Your task to perform on an android device: clear history in the chrome app Image 0: 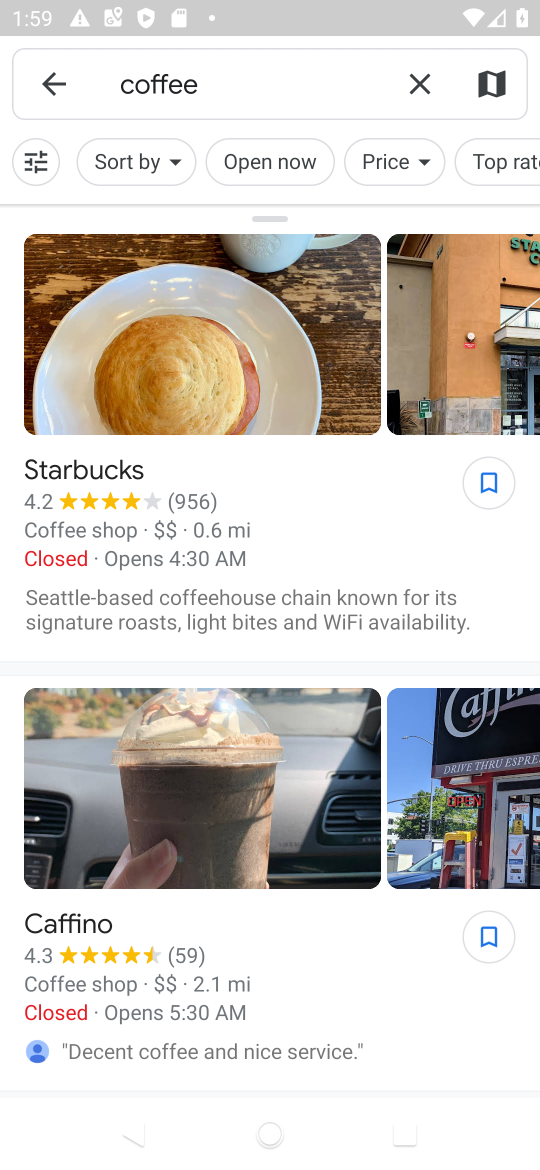
Step 0: press home button
Your task to perform on an android device: clear history in the chrome app Image 1: 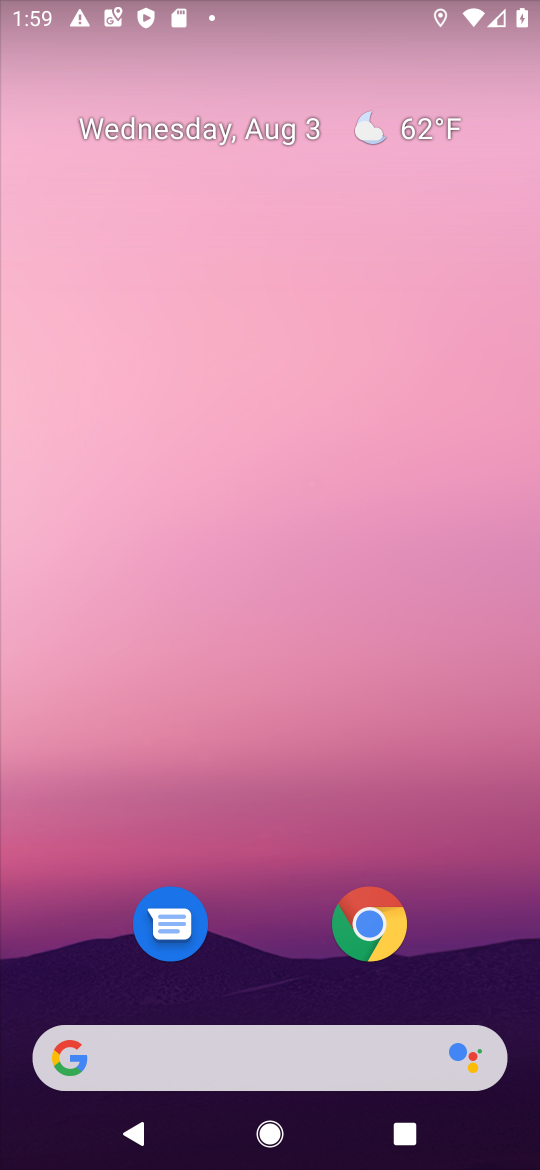
Step 1: click (365, 920)
Your task to perform on an android device: clear history in the chrome app Image 2: 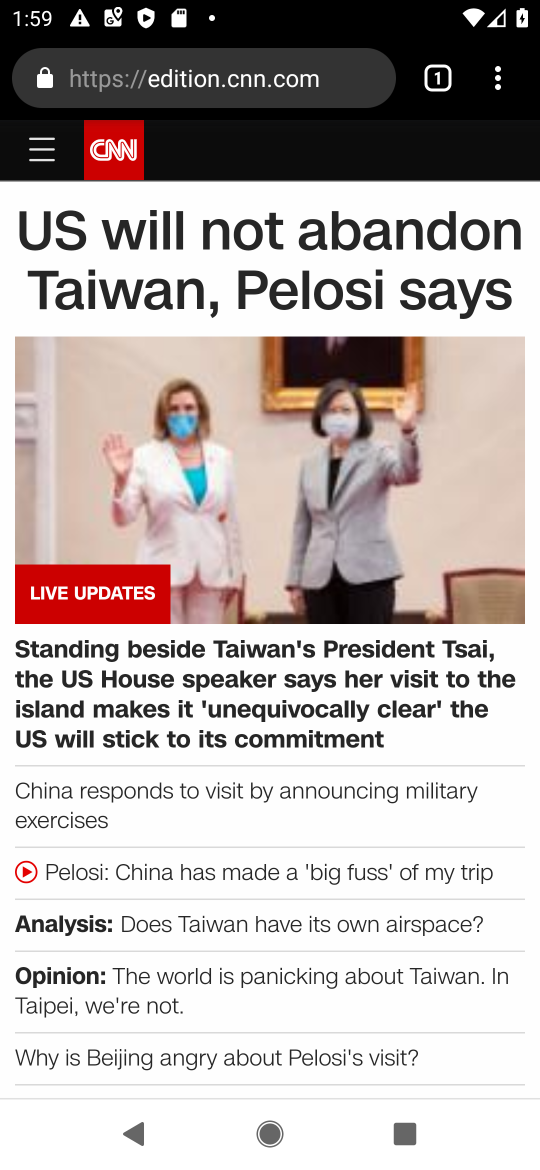
Step 2: click (490, 74)
Your task to perform on an android device: clear history in the chrome app Image 3: 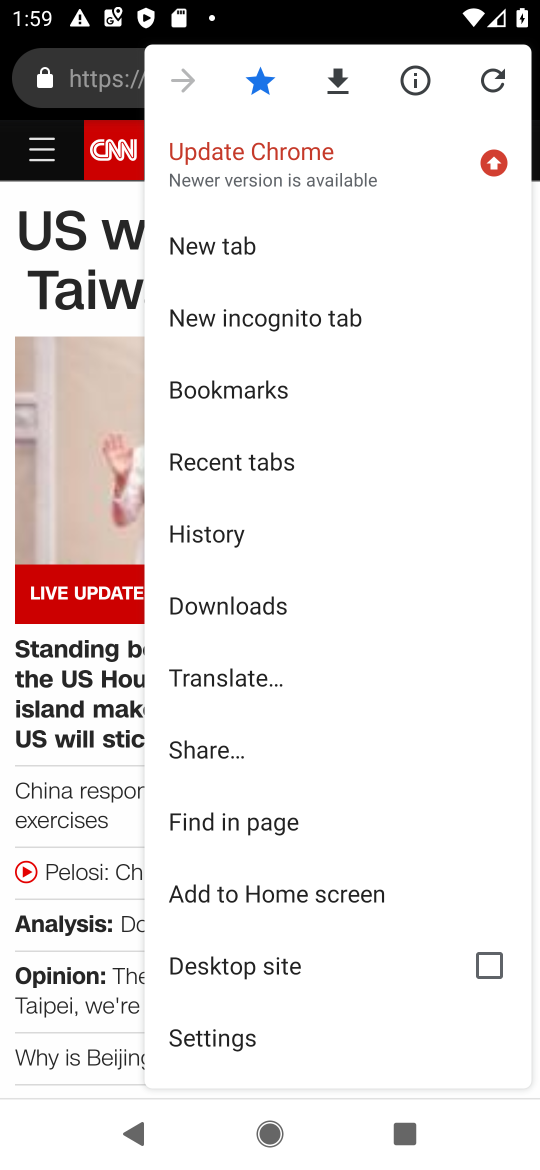
Step 3: click (250, 530)
Your task to perform on an android device: clear history in the chrome app Image 4: 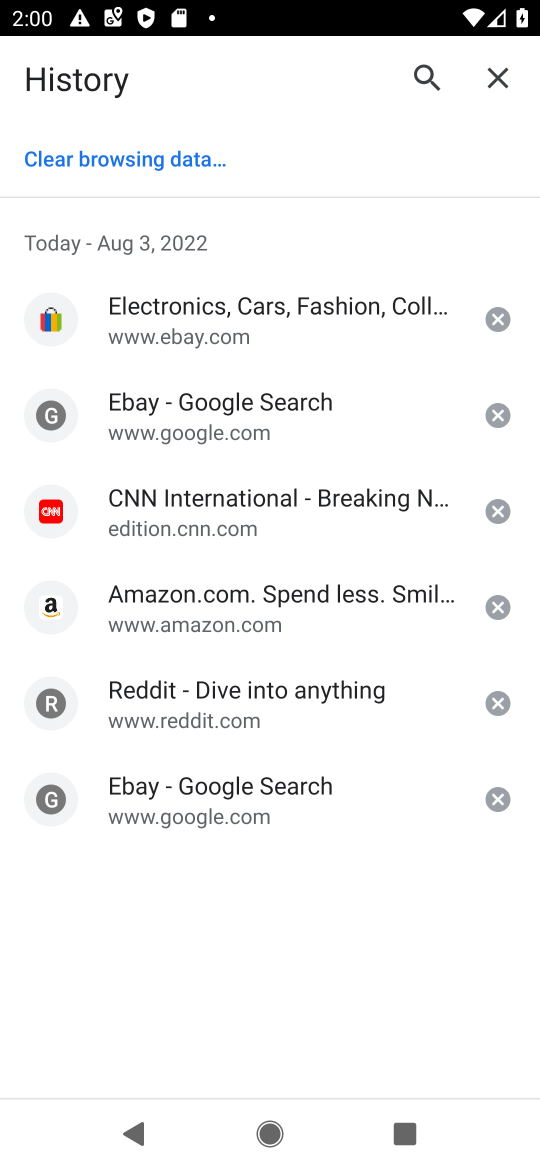
Step 4: click (127, 145)
Your task to perform on an android device: clear history in the chrome app Image 5: 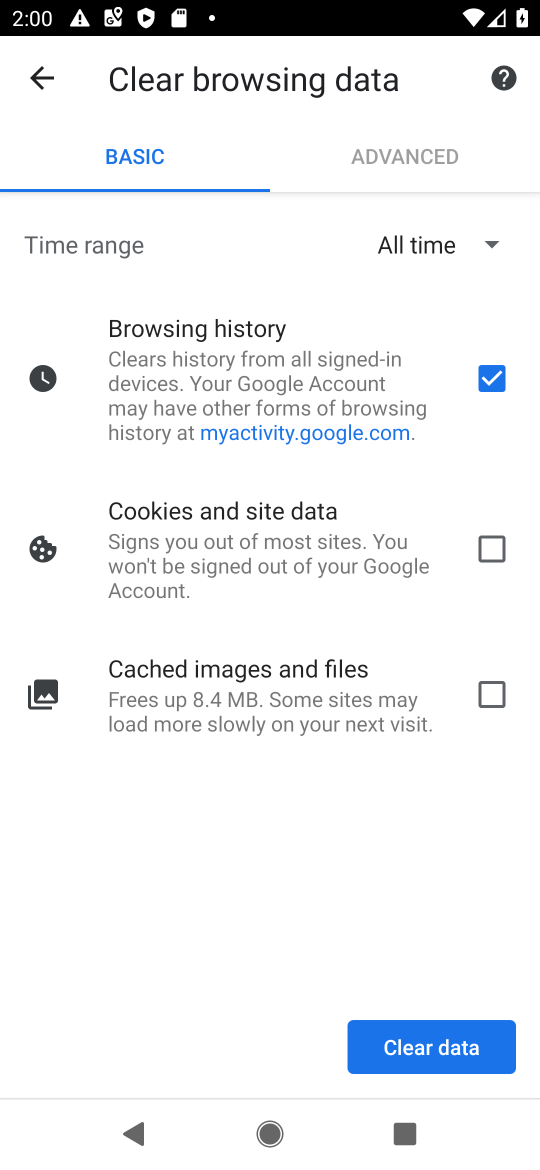
Step 5: click (499, 546)
Your task to perform on an android device: clear history in the chrome app Image 6: 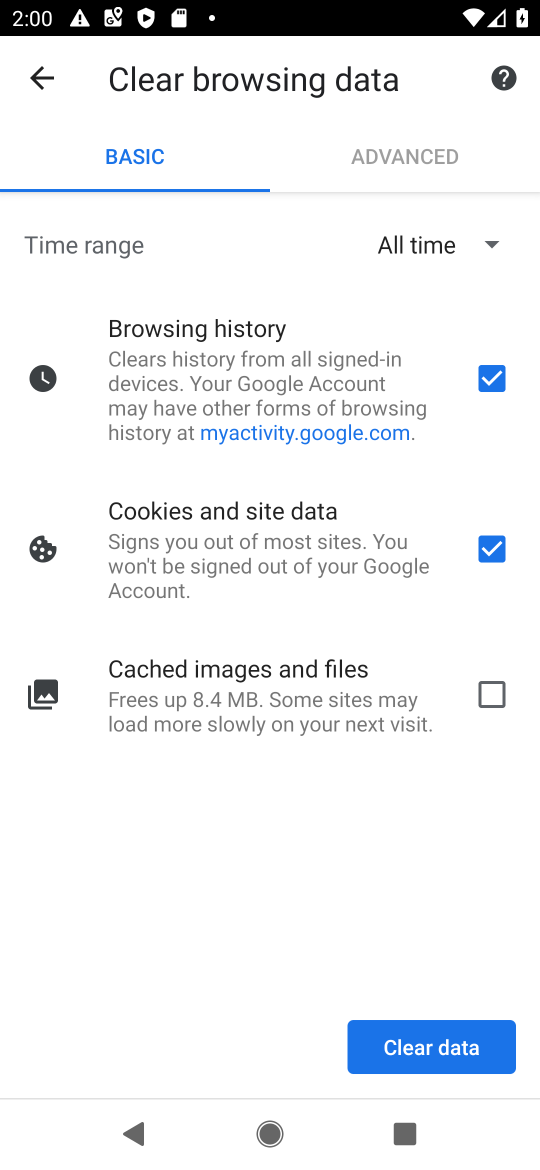
Step 6: click (489, 694)
Your task to perform on an android device: clear history in the chrome app Image 7: 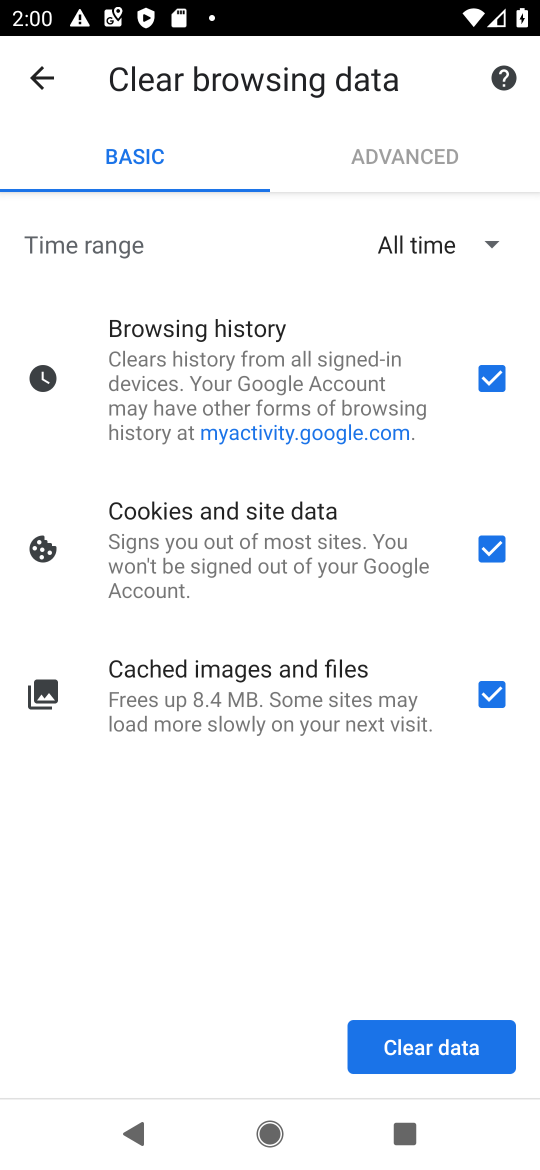
Step 7: click (424, 1039)
Your task to perform on an android device: clear history in the chrome app Image 8: 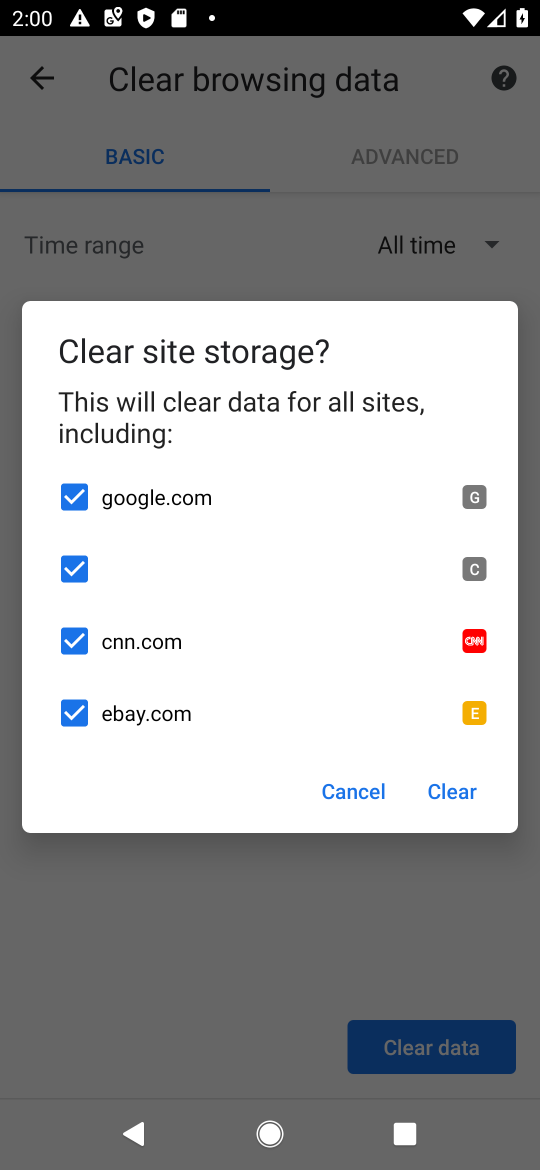
Step 8: click (456, 789)
Your task to perform on an android device: clear history in the chrome app Image 9: 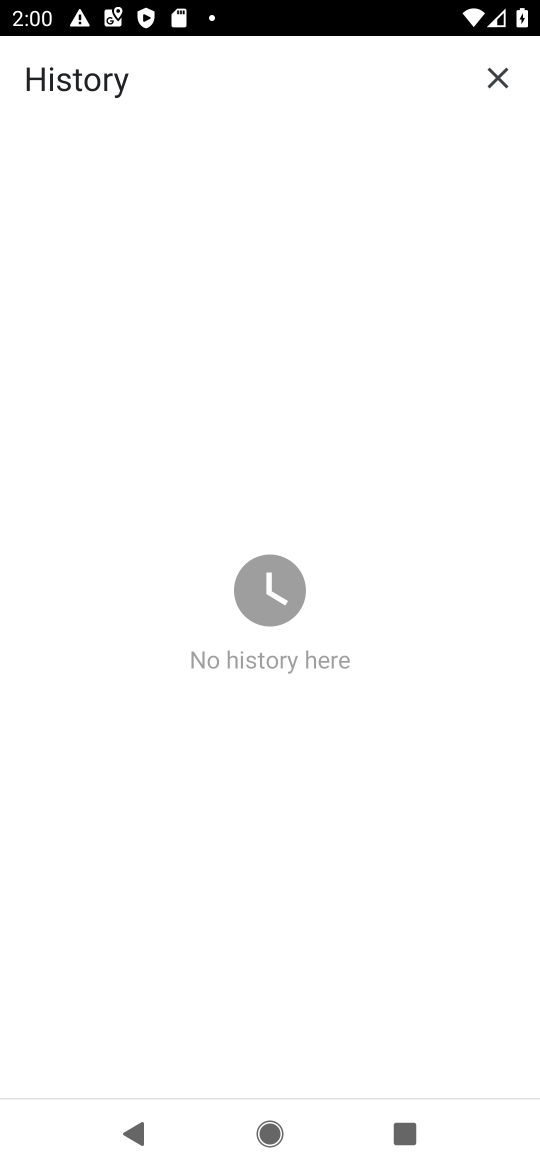
Step 9: task complete